Your task to perform on an android device: Open battery settings Image 0: 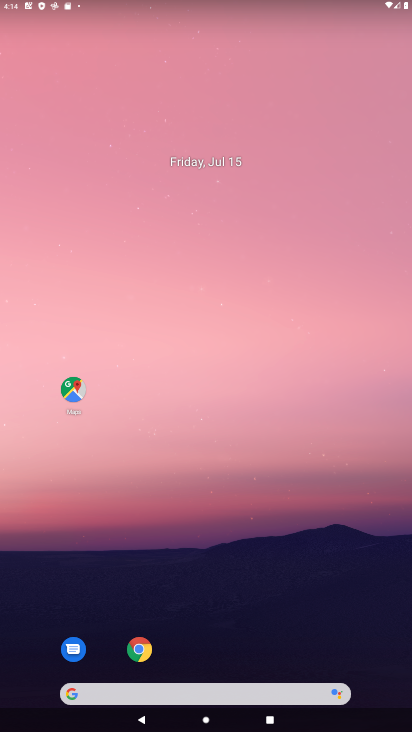
Step 0: drag from (249, 595) to (243, 31)
Your task to perform on an android device: Open battery settings Image 1: 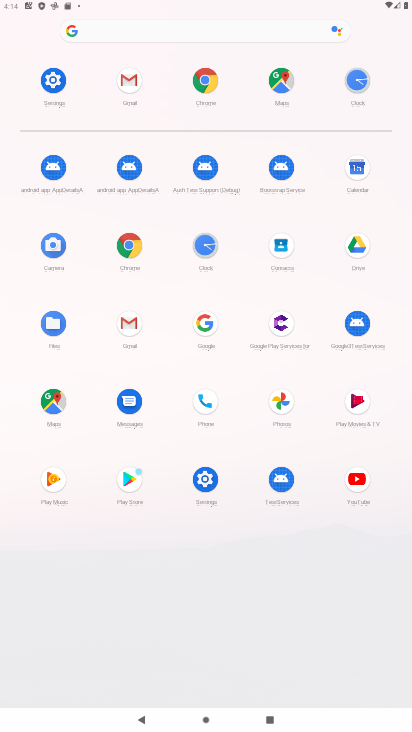
Step 1: click (59, 74)
Your task to perform on an android device: Open battery settings Image 2: 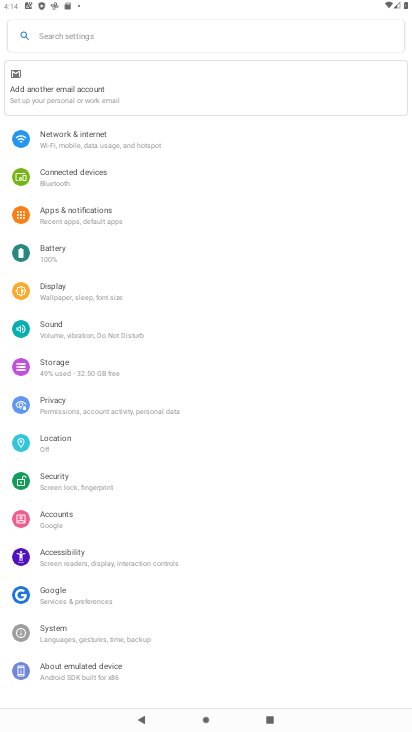
Step 2: click (64, 247)
Your task to perform on an android device: Open battery settings Image 3: 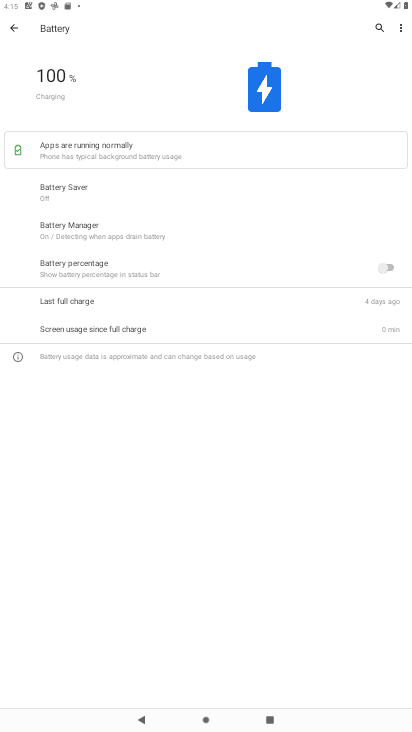
Step 3: task complete